Your task to perform on an android device: Open the Play Movies app and select the watchlist tab. Image 0: 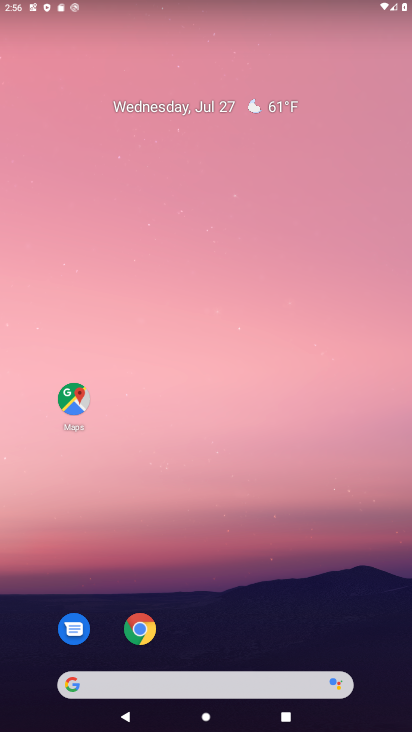
Step 0: drag from (193, 686) to (383, 14)
Your task to perform on an android device: Open the Play Movies app and select the watchlist tab. Image 1: 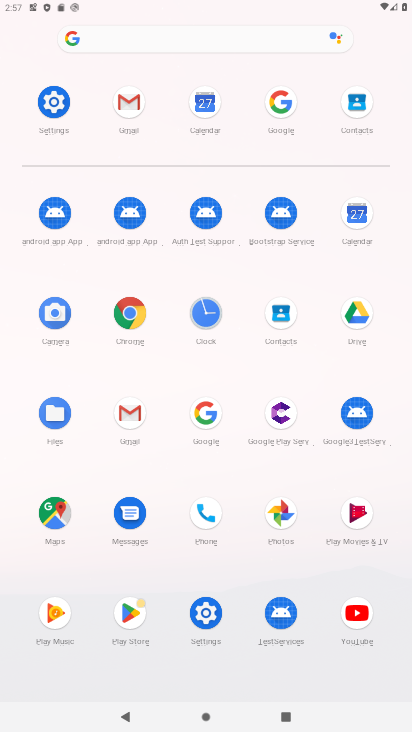
Step 1: click (356, 515)
Your task to perform on an android device: Open the Play Movies app and select the watchlist tab. Image 2: 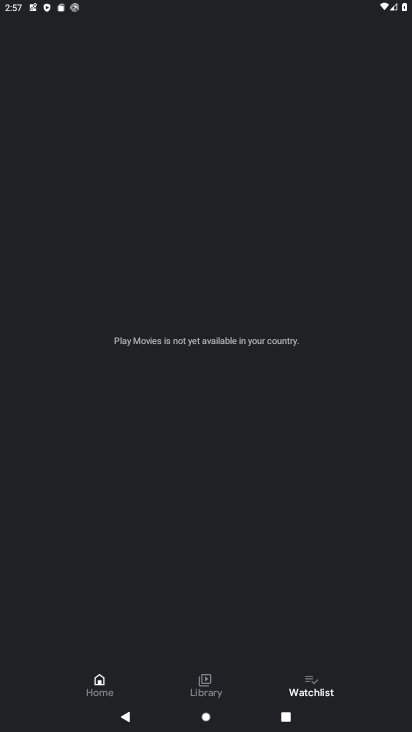
Step 2: click (312, 686)
Your task to perform on an android device: Open the Play Movies app and select the watchlist tab. Image 3: 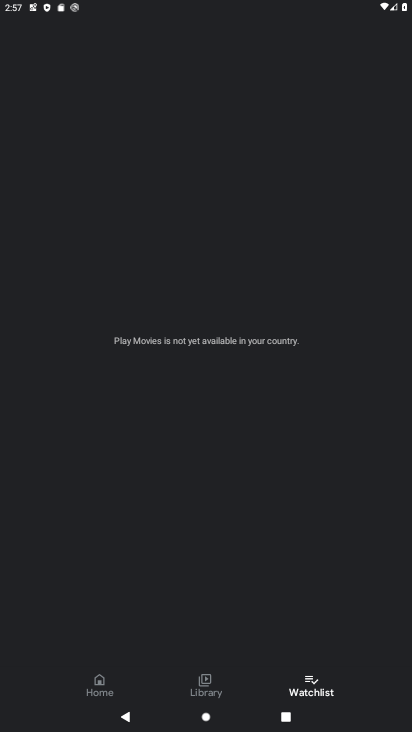
Step 3: task complete